Your task to perform on an android device: change timer sound Image 0: 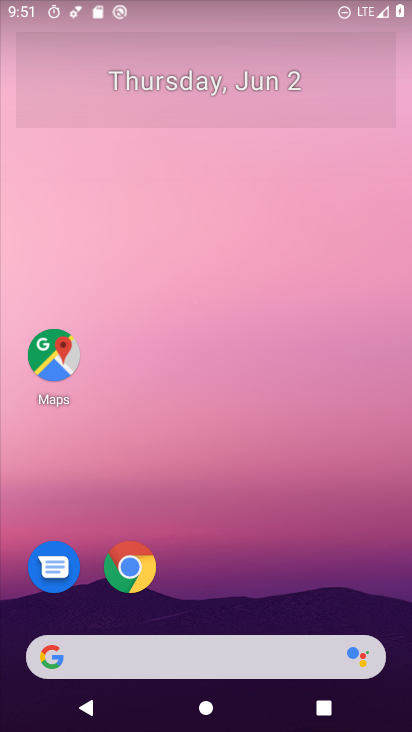
Step 0: drag from (306, 589) to (327, 188)
Your task to perform on an android device: change timer sound Image 1: 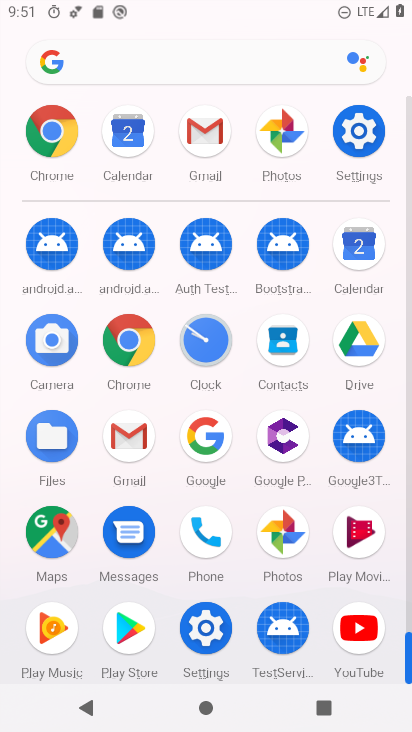
Step 1: click (191, 337)
Your task to perform on an android device: change timer sound Image 2: 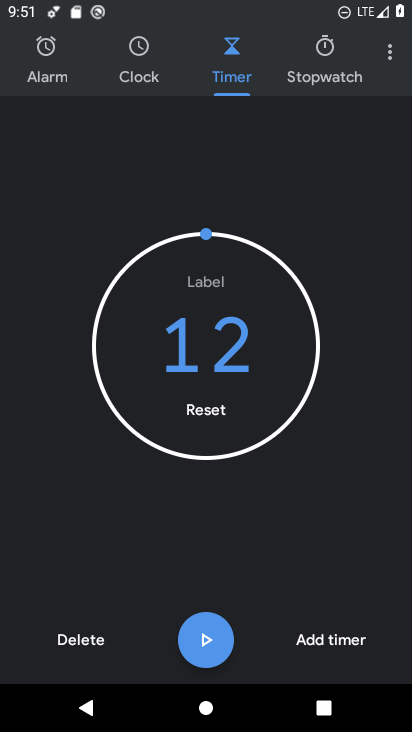
Step 2: drag from (379, 47) to (304, 100)
Your task to perform on an android device: change timer sound Image 3: 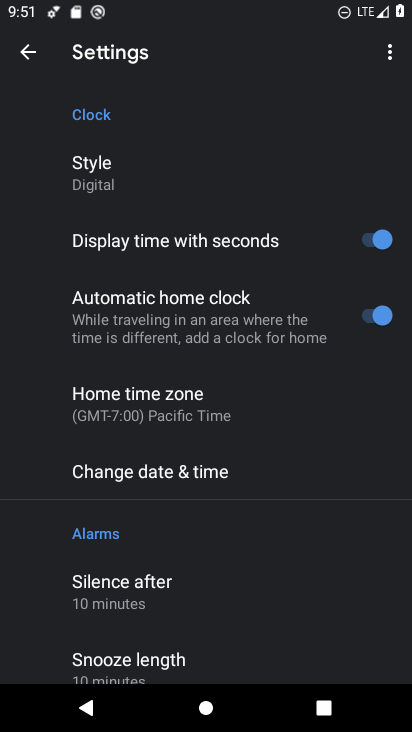
Step 3: drag from (249, 567) to (275, 209)
Your task to perform on an android device: change timer sound Image 4: 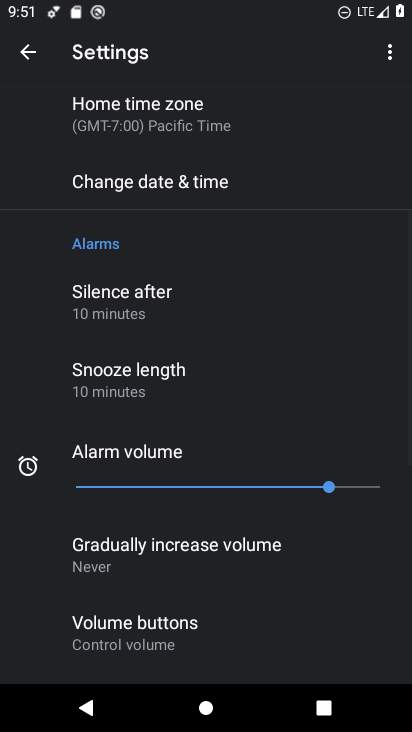
Step 4: drag from (274, 470) to (282, 189)
Your task to perform on an android device: change timer sound Image 5: 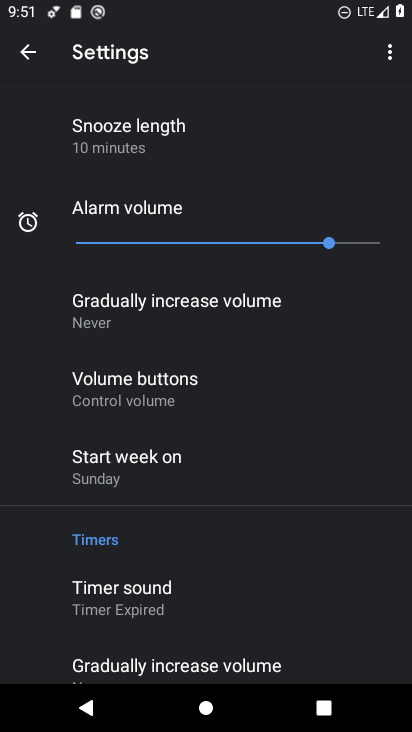
Step 5: click (188, 588)
Your task to perform on an android device: change timer sound Image 6: 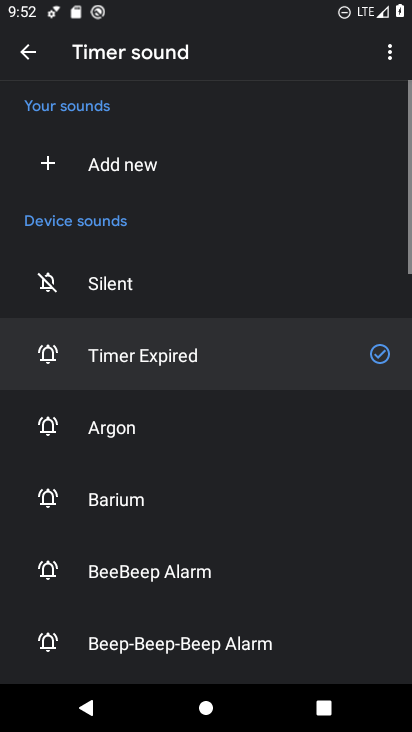
Step 6: click (195, 433)
Your task to perform on an android device: change timer sound Image 7: 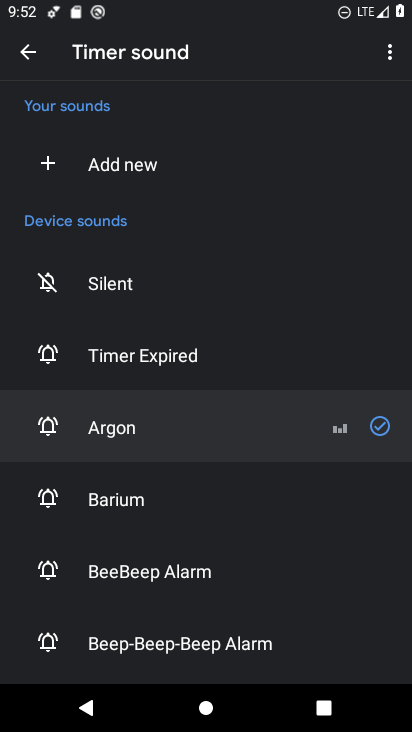
Step 7: task complete